Your task to perform on an android device: Go to Google maps Image 0: 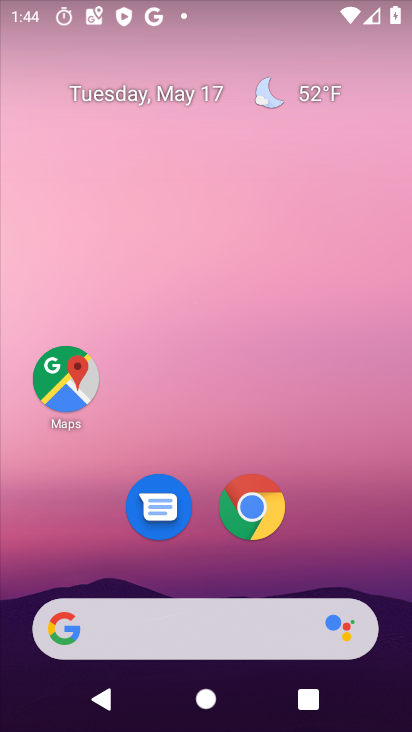
Step 0: click (70, 380)
Your task to perform on an android device: Go to Google maps Image 1: 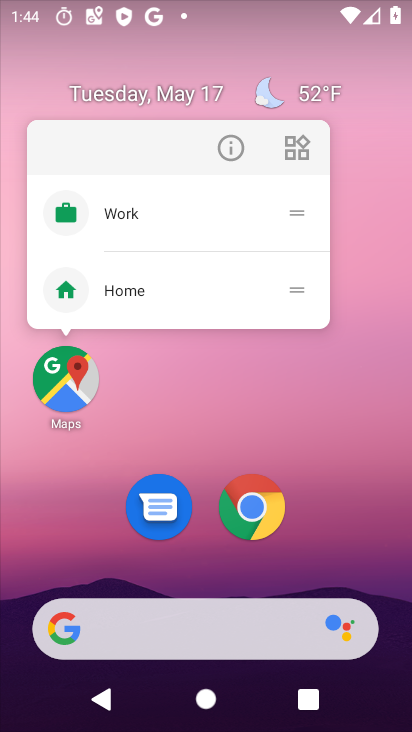
Step 1: click (67, 384)
Your task to perform on an android device: Go to Google maps Image 2: 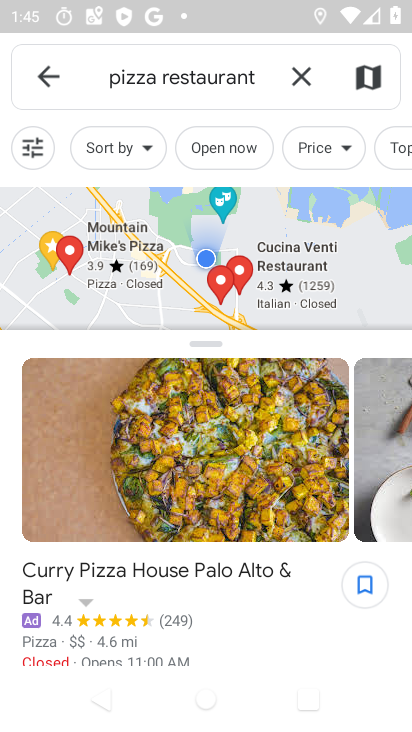
Step 2: task complete